Your task to perform on an android device: Go to sound settings Image 0: 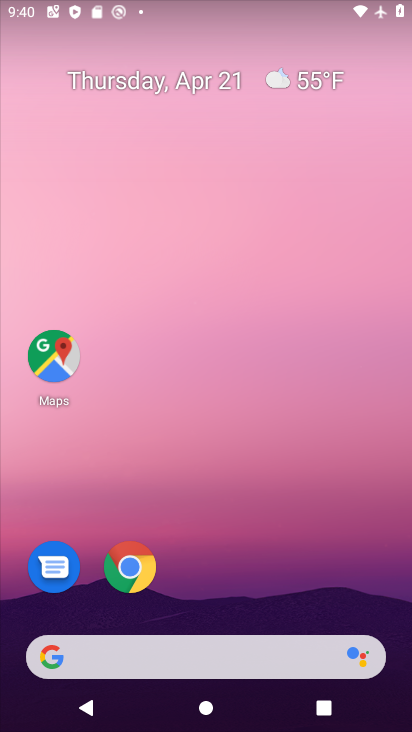
Step 0: drag from (353, 604) to (301, 117)
Your task to perform on an android device: Go to sound settings Image 1: 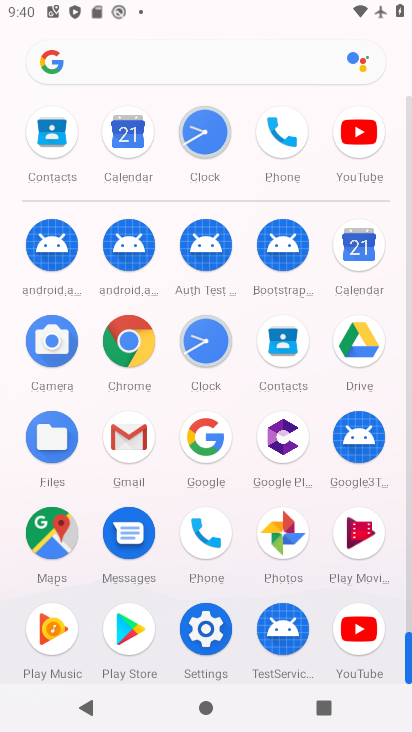
Step 1: click (208, 628)
Your task to perform on an android device: Go to sound settings Image 2: 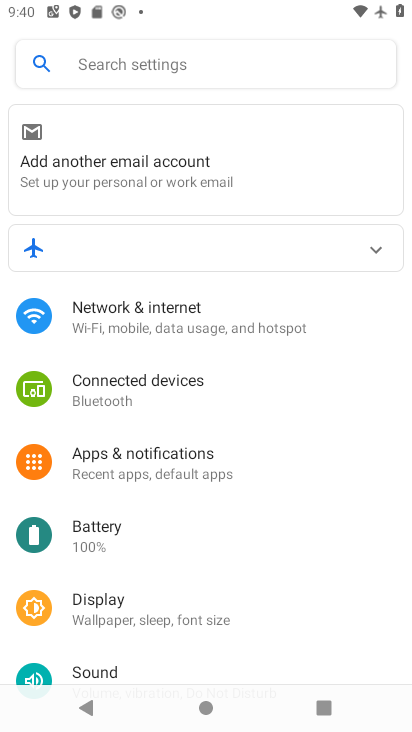
Step 2: drag from (159, 621) to (219, 278)
Your task to perform on an android device: Go to sound settings Image 3: 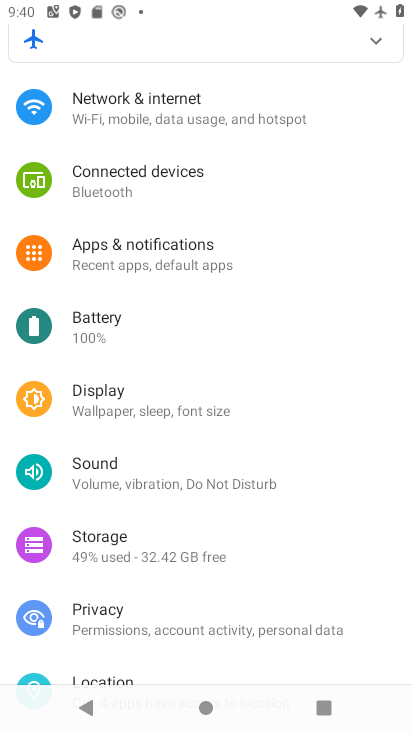
Step 3: click (112, 473)
Your task to perform on an android device: Go to sound settings Image 4: 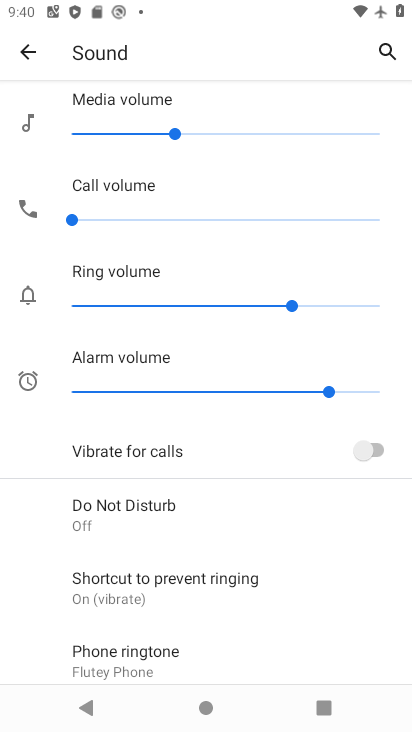
Step 4: drag from (212, 565) to (254, 178)
Your task to perform on an android device: Go to sound settings Image 5: 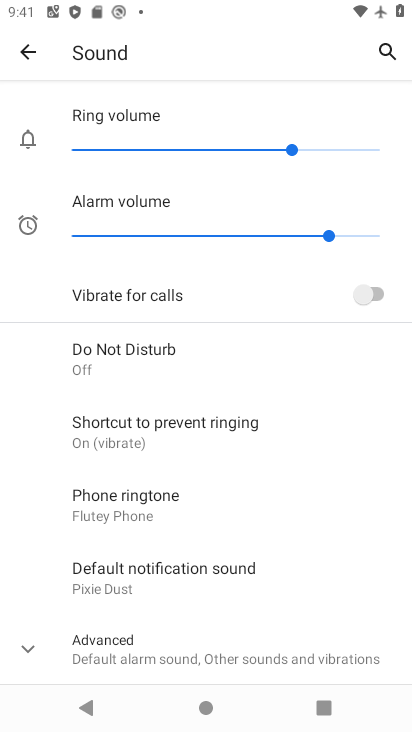
Step 5: click (24, 647)
Your task to perform on an android device: Go to sound settings Image 6: 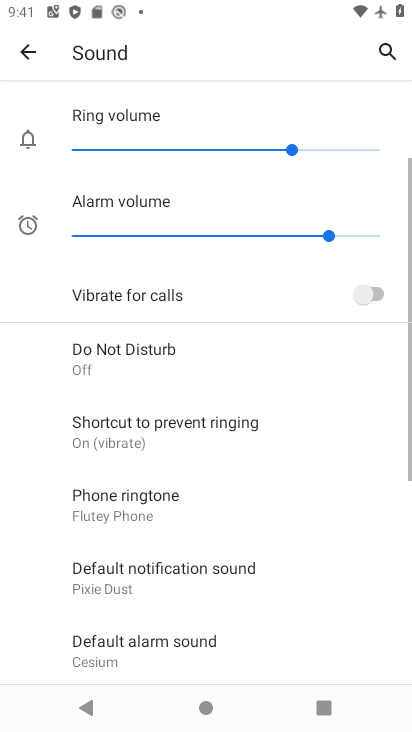
Step 6: task complete